Your task to perform on an android device: Empty the shopping cart on amazon. Add "usb-a" to the cart on amazon Image 0: 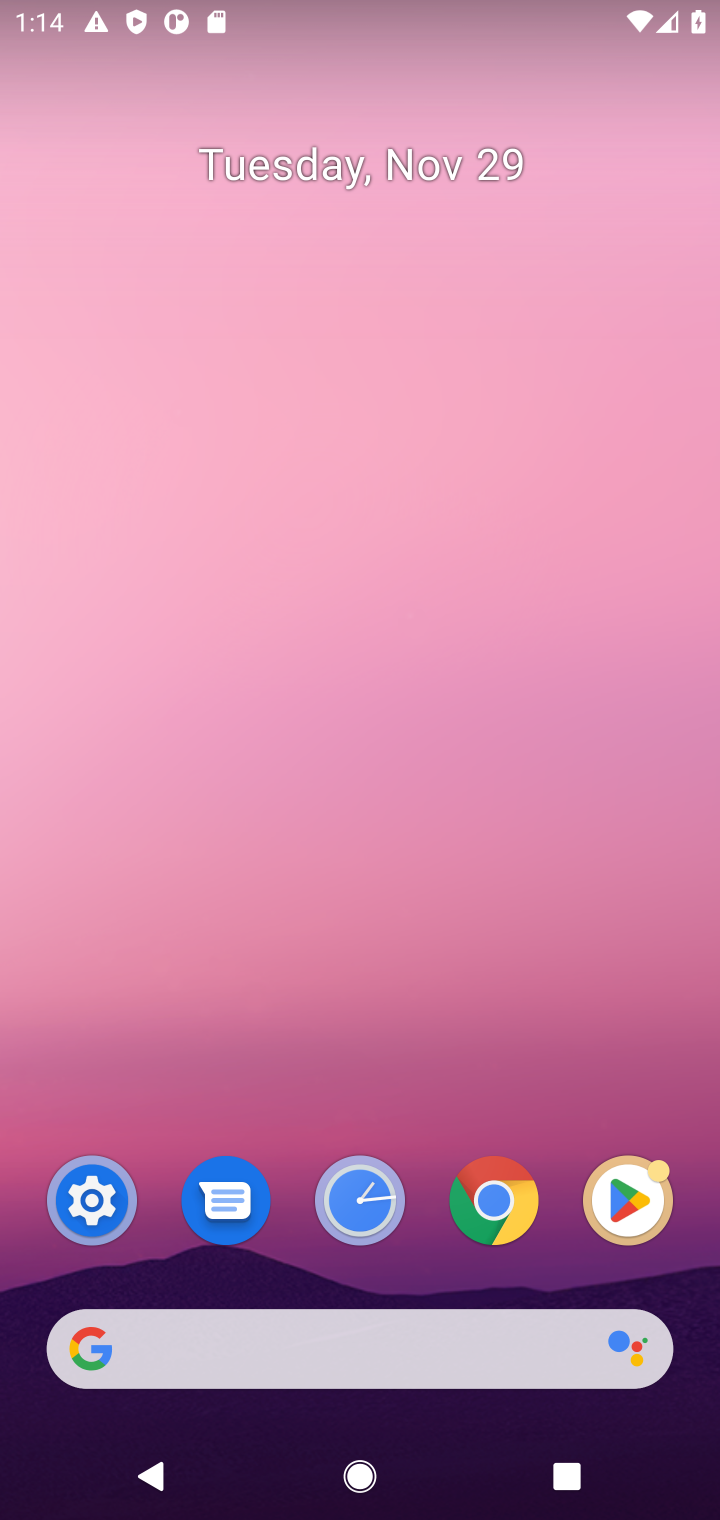
Step 0: press home button
Your task to perform on an android device: Empty the shopping cart on amazon. Add "usb-a" to the cart on amazon Image 1: 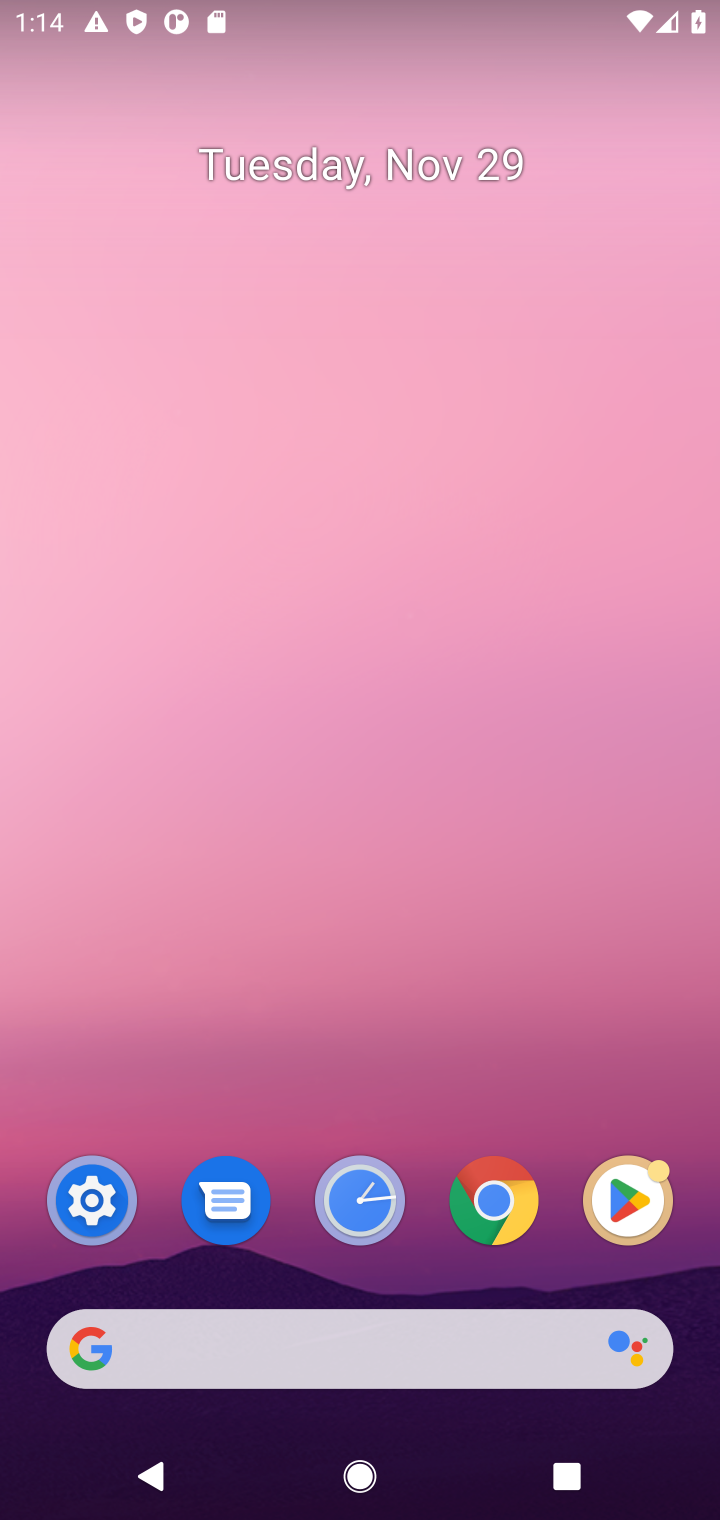
Step 1: click (324, 1355)
Your task to perform on an android device: Empty the shopping cart on amazon. Add "usb-a" to the cart on amazon Image 2: 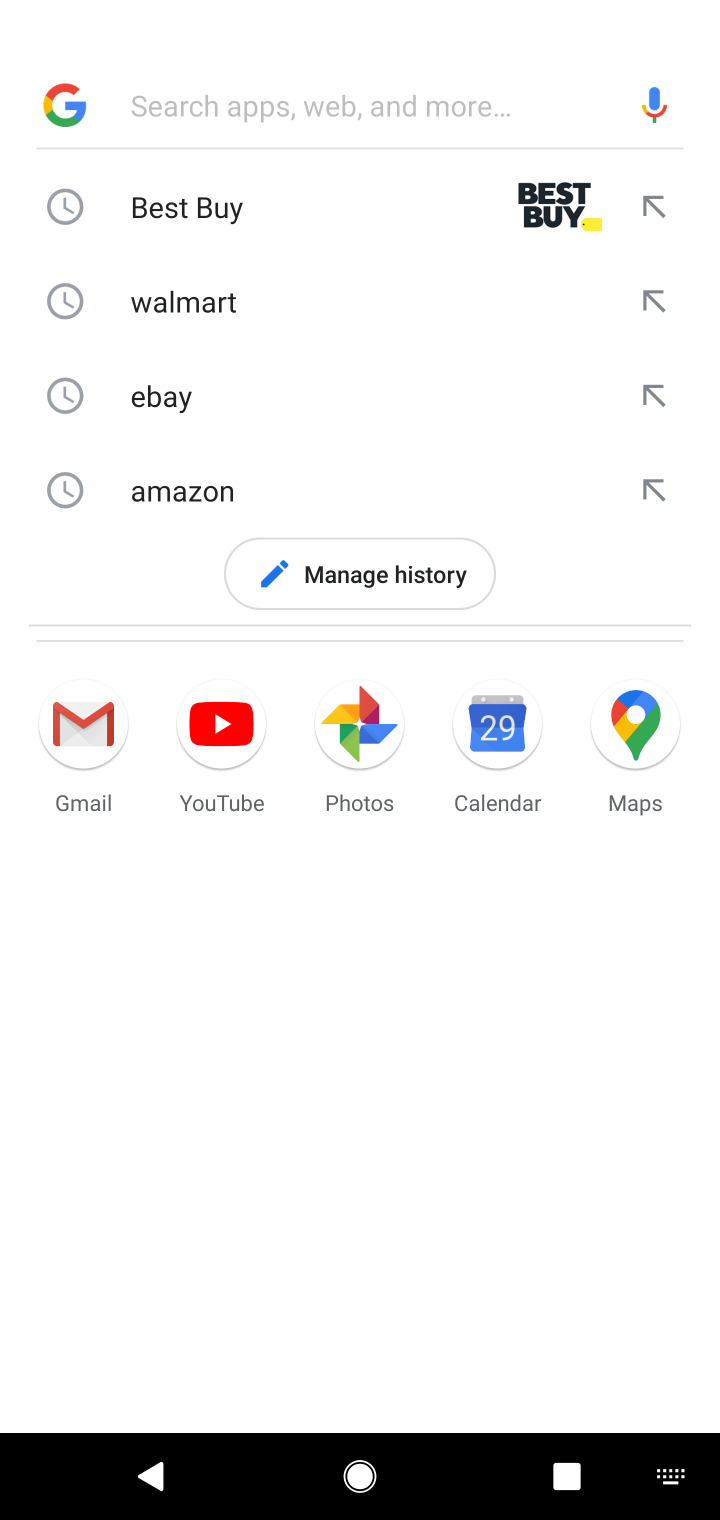
Step 2: type "amazon"
Your task to perform on an android device: Empty the shopping cart on amazon. Add "usb-a" to the cart on amazon Image 3: 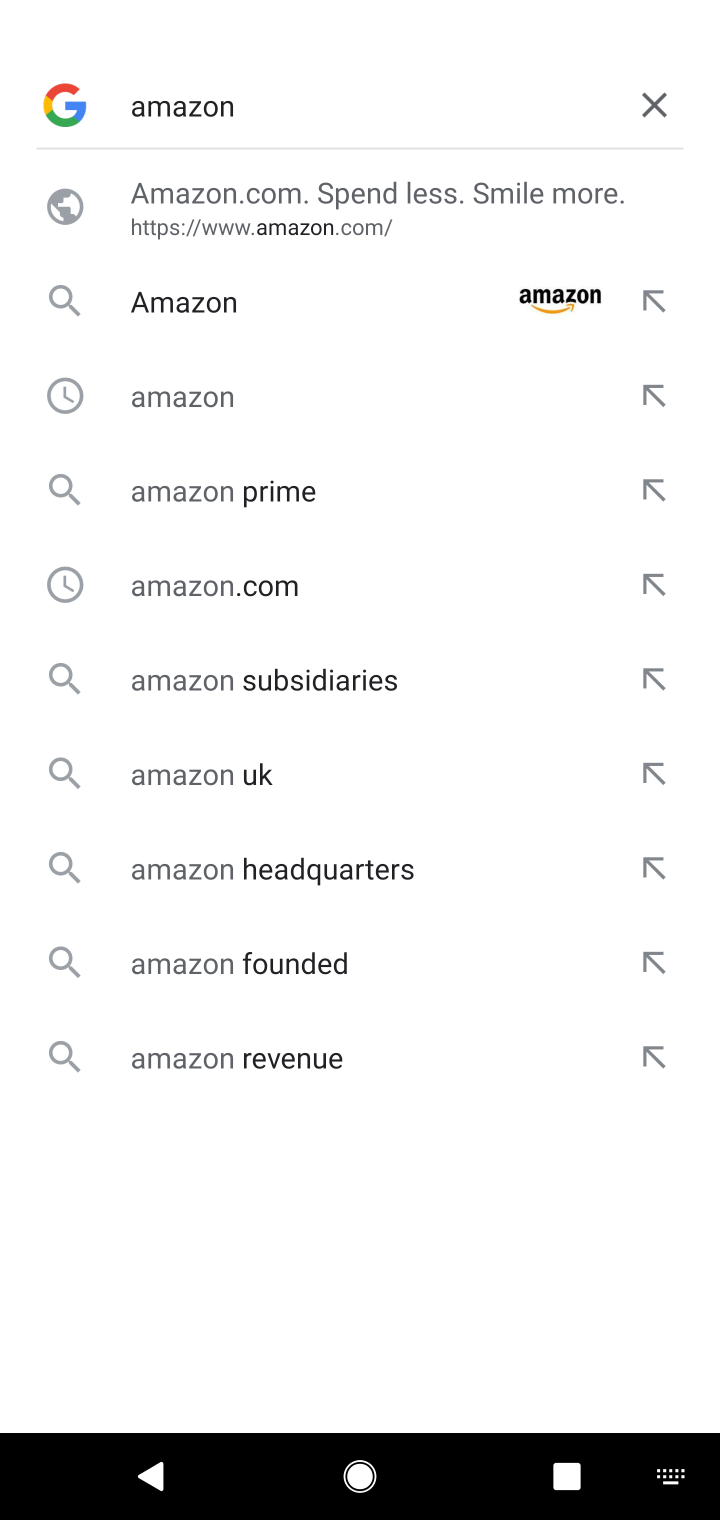
Step 3: click (254, 221)
Your task to perform on an android device: Empty the shopping cart on amazon. Add "usb-a" to the cart on amazon Image 4: 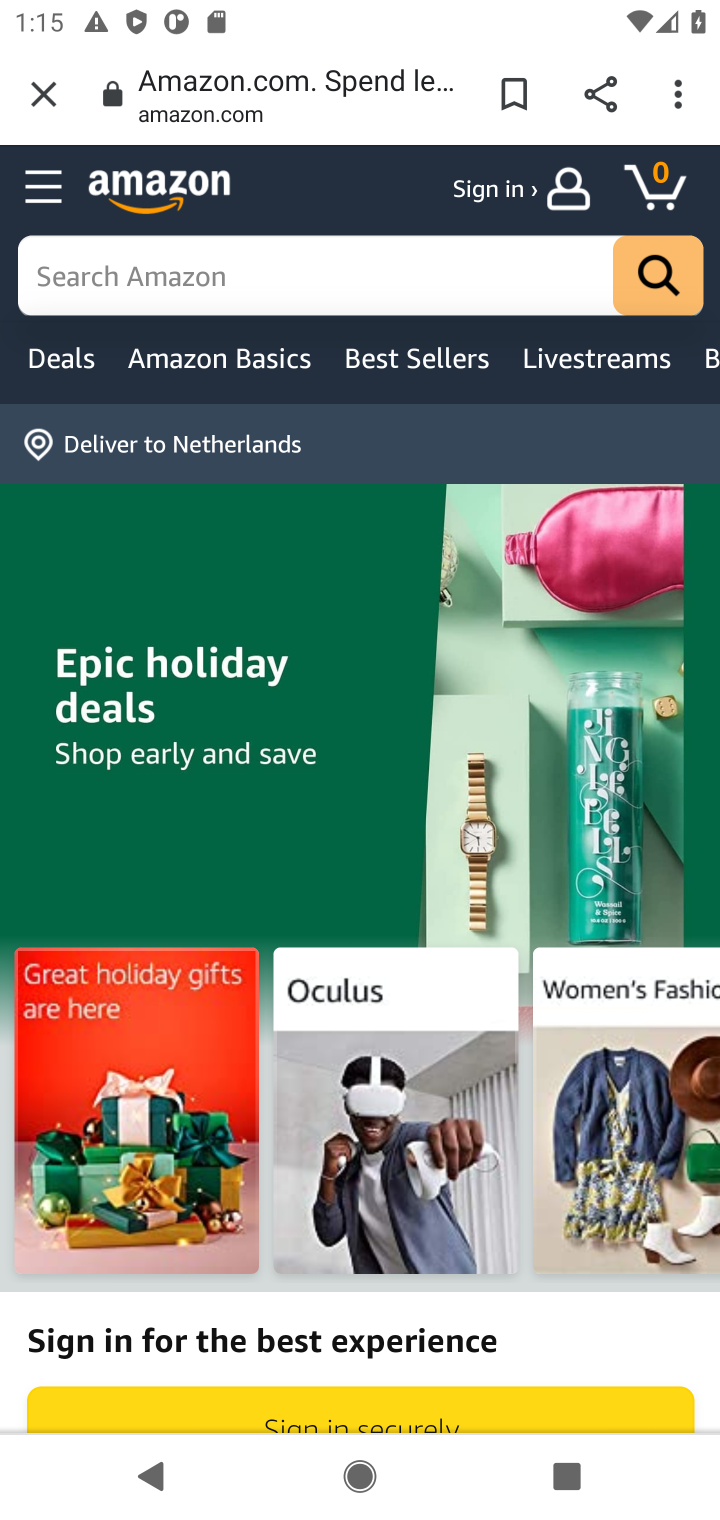
Step 4: click (252, 287)
Your task to perform on an android device: Empty the shopping cart on amazon. Add "usb-a" to the cart on amazon Image 5: 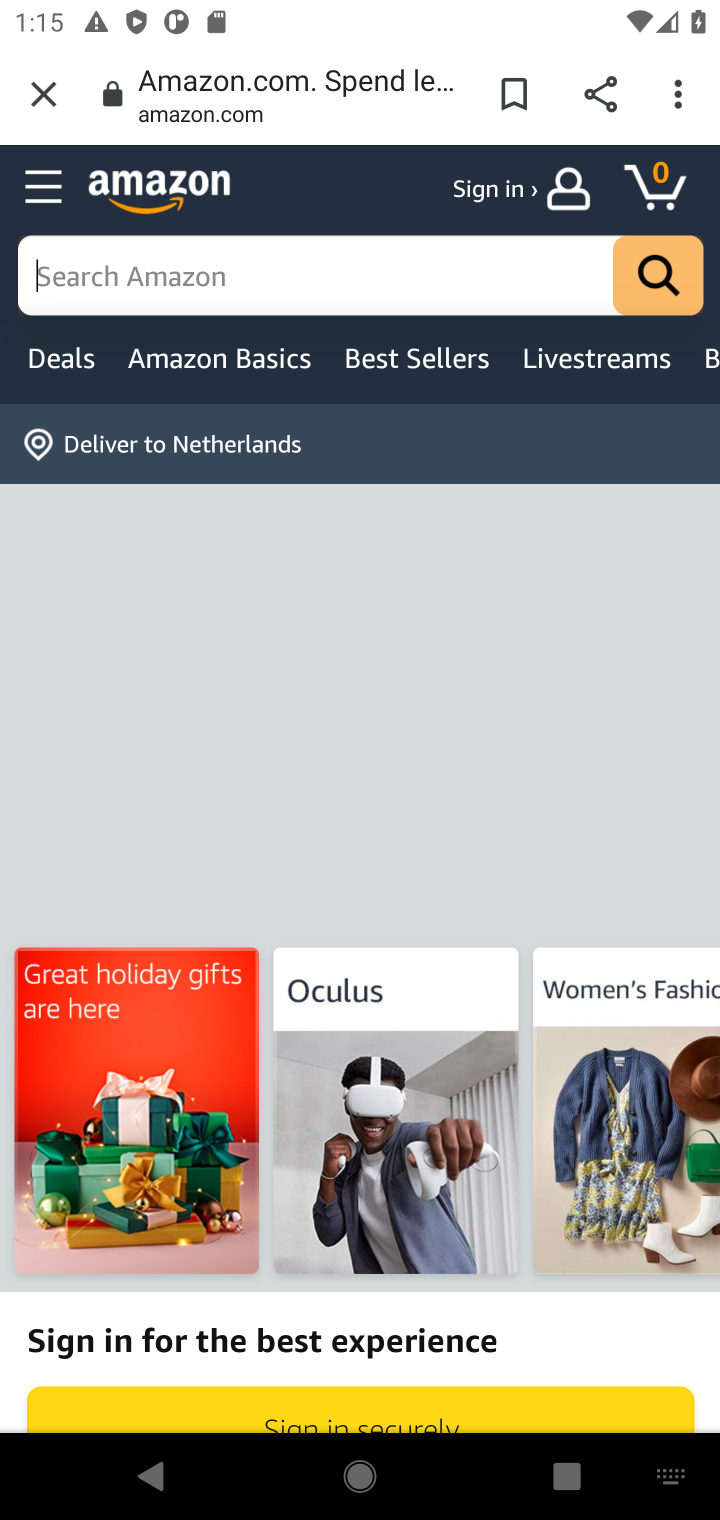
Step 5: type "usb-a"
Your task to perform on an android device: Empty the shopping cart on amazon. Add "usb-a" to the cart on amazon Image 6: 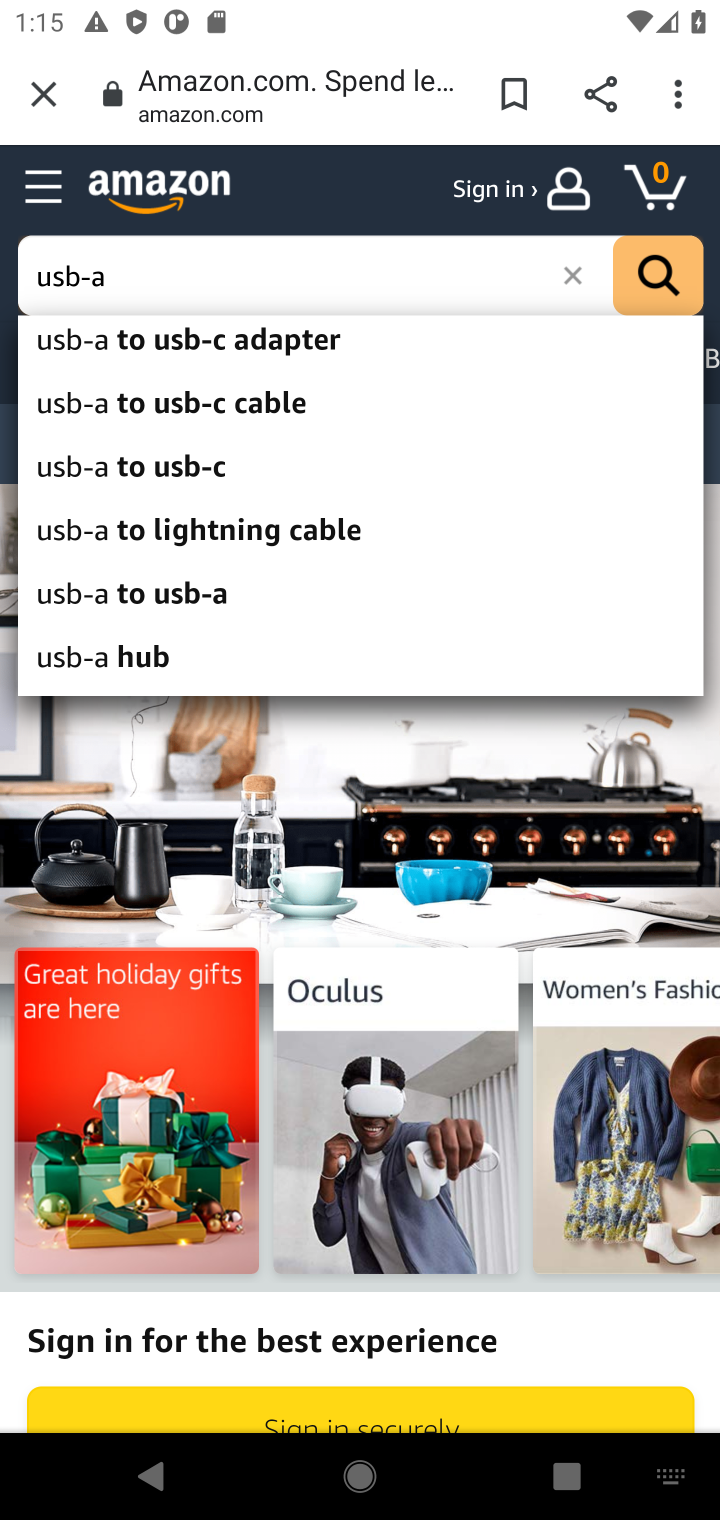
Step 6: click (134, 649)
Your task to perform on an android device: Empty the shopping cart on amazon. Add "usb-a" to the cart on amazon Image 7: 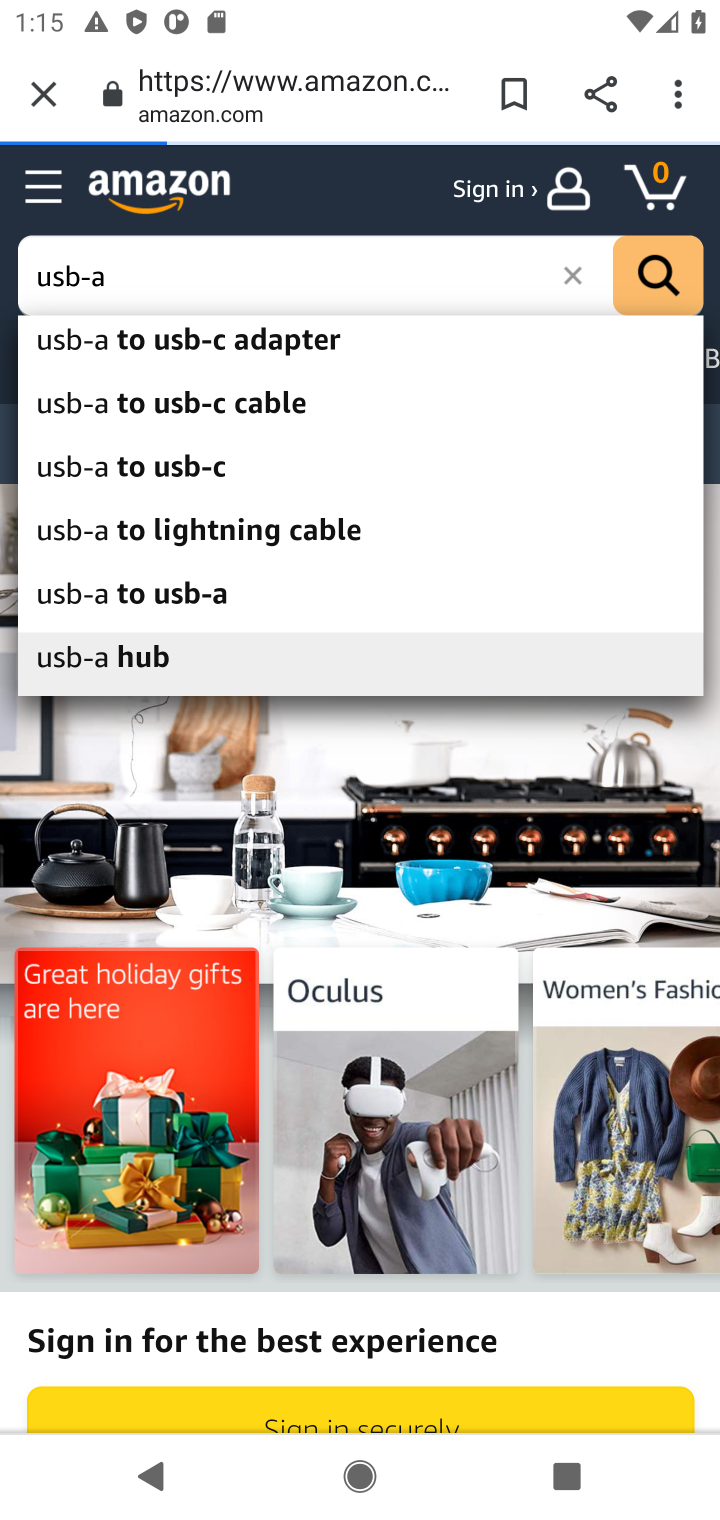
Step 7: task complete